Your task to perform on an android device: check data usage Image 0: 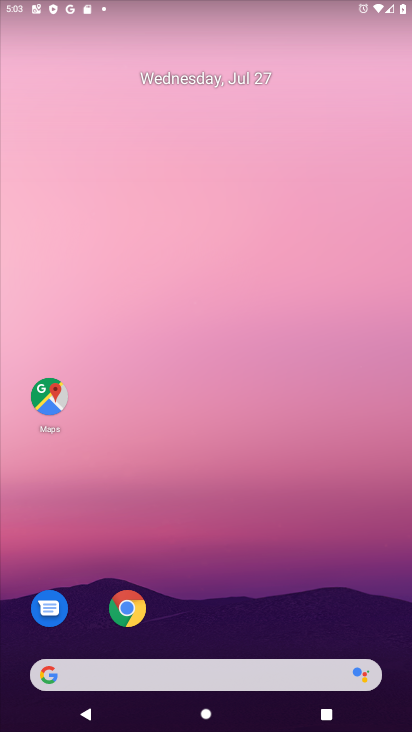
Step 0: drag from (201, 623) to (113, 70)
Your task to perform on an android device: check data usage Image 1: 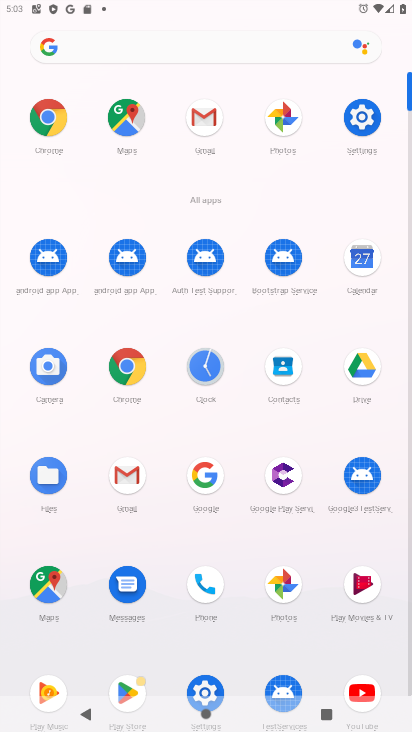
Step 1: click (373, 132)
Your task to perform on an android device: check data usage Image 2: 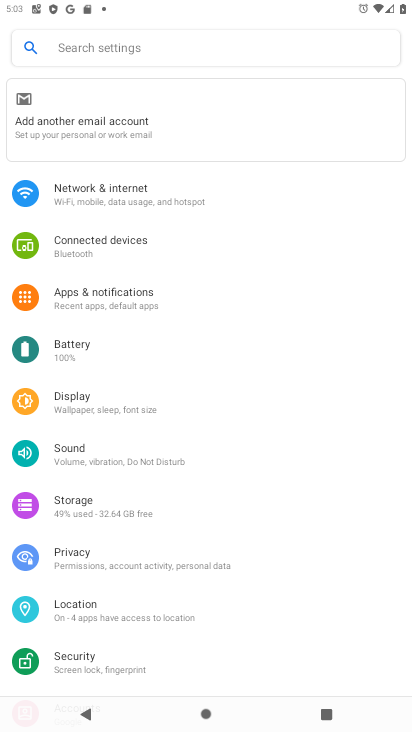
Step 2: click (68, 181)
Your task to perform on an android device: check data usage Image 3: 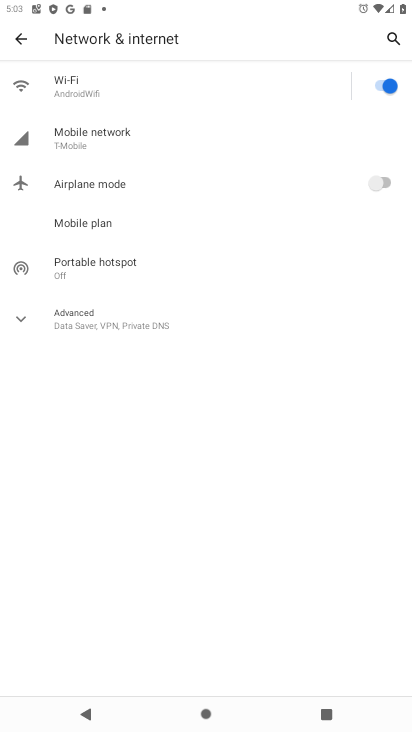
Step 3: click (108, 150)
Your task to perform on an android device: check data usage Image 4: 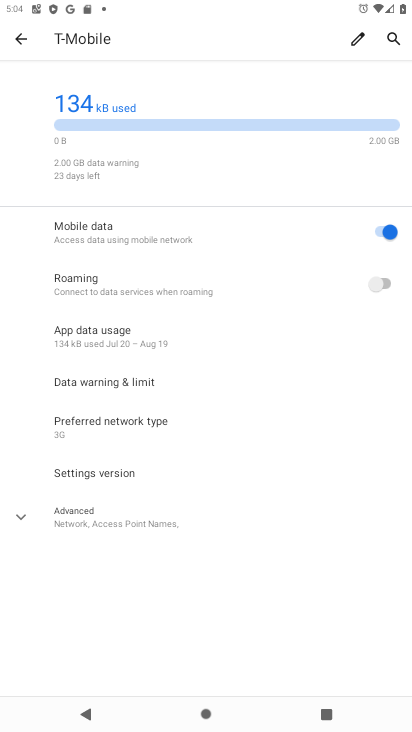
Step 4: task complete